Your task to perform on an android device: remove spam from my inbox in the gmail app Image 0: 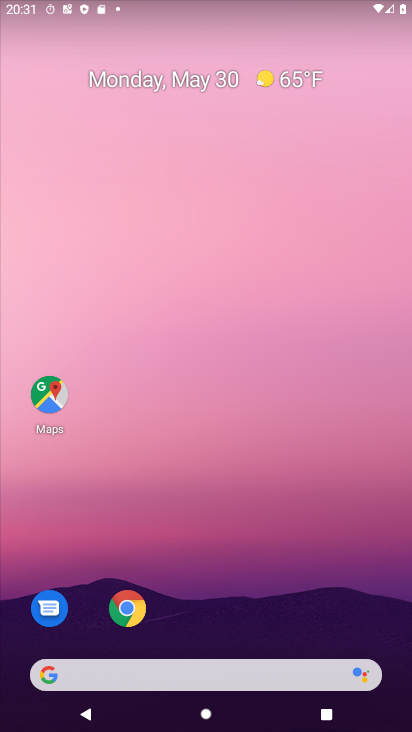
Step 0: drag from (222, 626) to (216, 209)
Your task to perform on an android device: remove spam from my inbox in the gmail app Image 1: 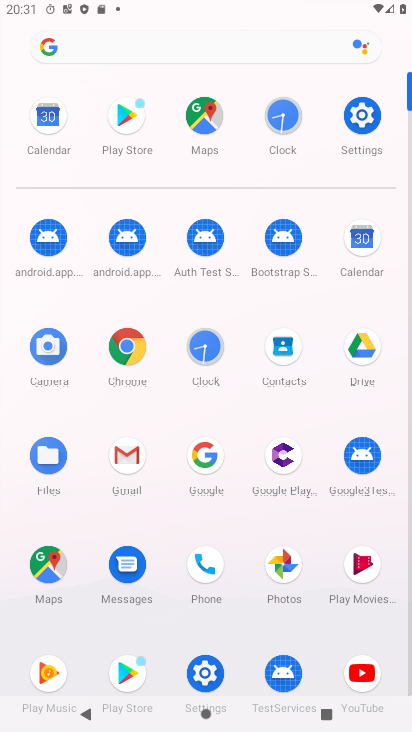
Step 1: click (133, 450)
Your task to perform on an android device: remove spam from my inbox in the gmail app Image 2: 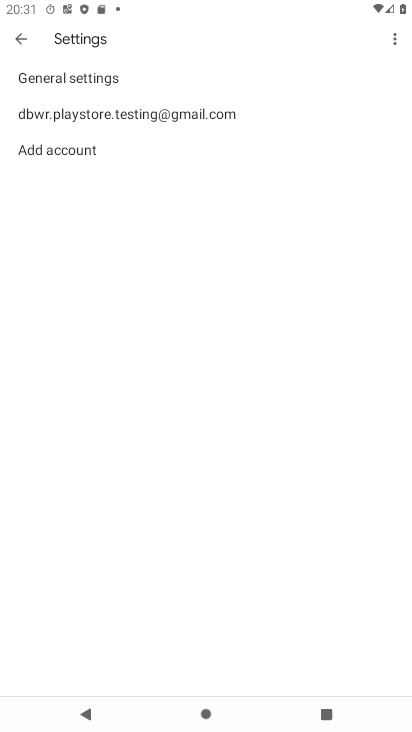
Step 2: click (21, 34)
Your task to perform on an android device: remove spam from my inbox in the gmail app Image 3: 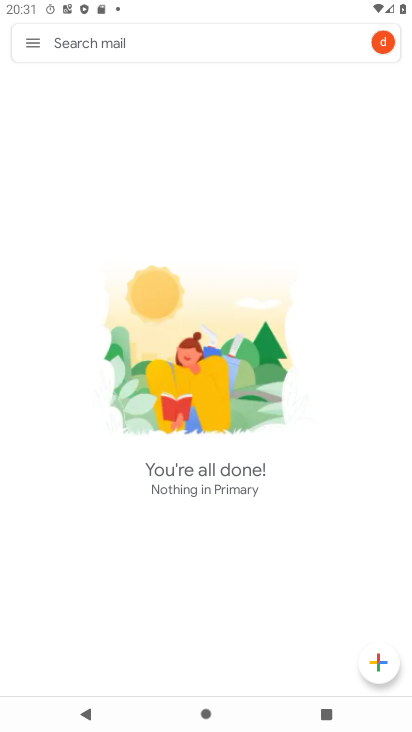
Step 3: click (21, 34)
Your task to perform on an android device: remove spam from my inbox in the gmail app Image 4: 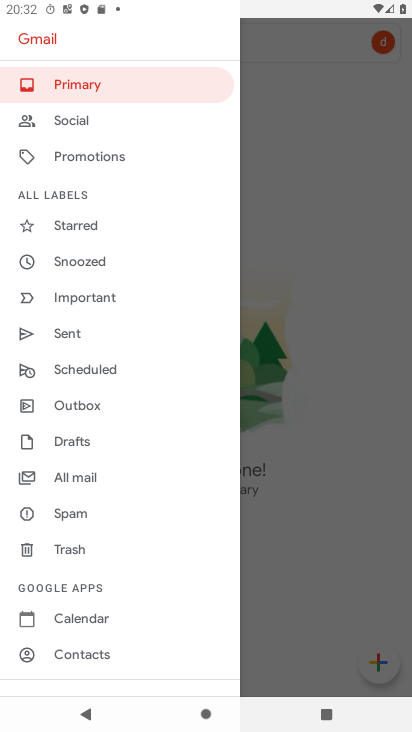
Step 4: click (87, 511)
Your task to perform on an android device: remove spam from my inbox in the gmail app Image 5: 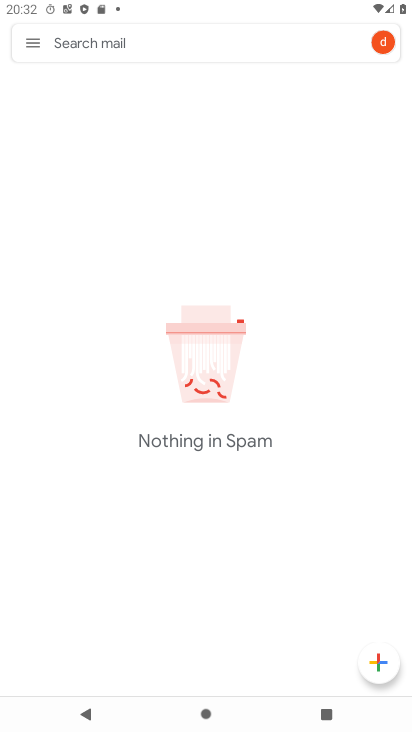
Step 5: click (26, 40)
Your task to perform on an android device: remove spam from my inbox in the gmail app Image 6: 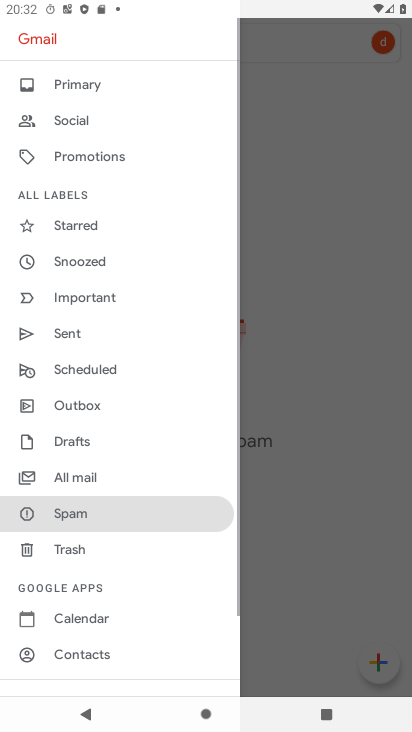
Step 6: click (335, 184)
Your task to perform on an android device: remove spam from my inbox in the gmail app Image 7: 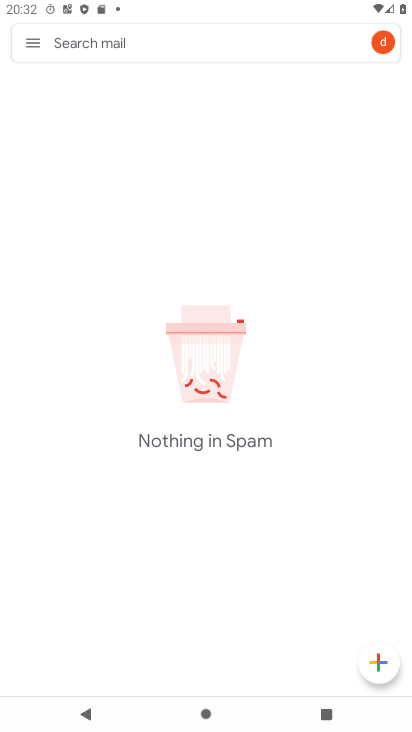
Step 7: task complete